Your task to perform on an android device: empty trash in google photos Image 0: 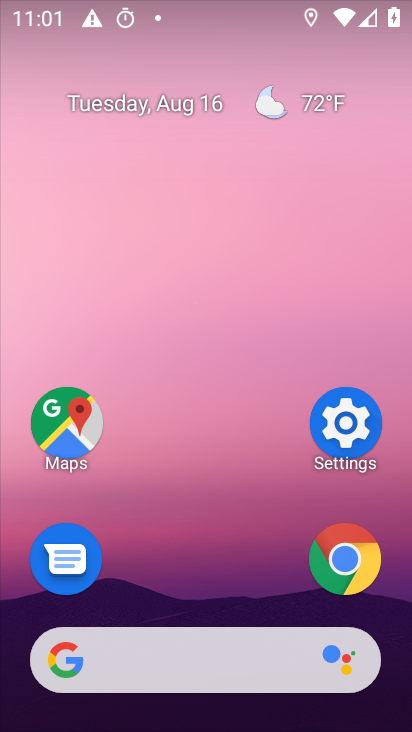
Step 0: drag from (186, 621) to (309, 120)
Your task to perform on an android device: empty trash in google photos Image 1: 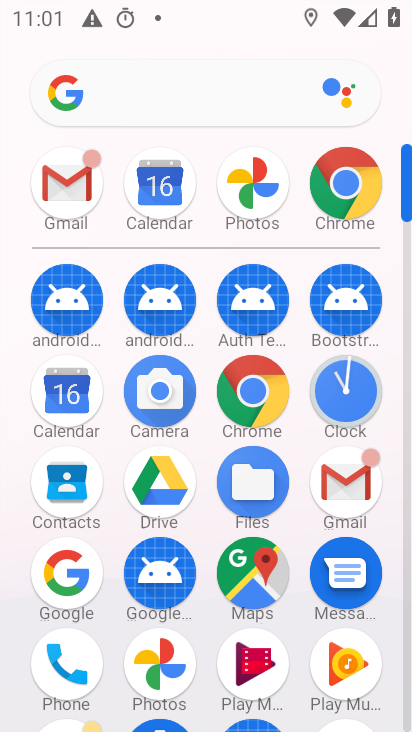
Step 1: click (257, 186)
Your task to perform on an android device: empty trash in google photos Image 2: 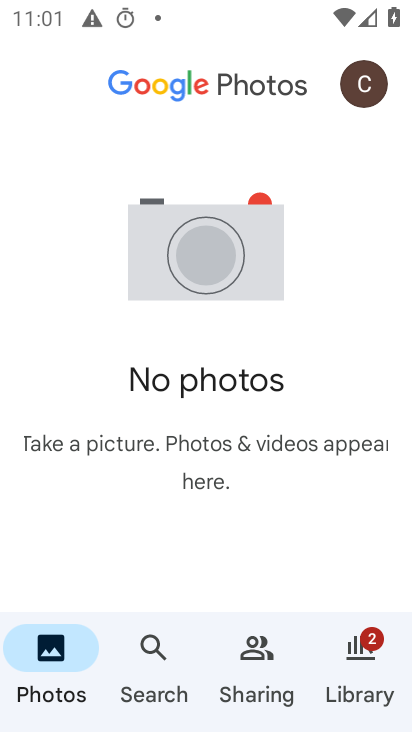
Step 2: click (341, 669)
Your task to perform on an android device: empty trash in google photos Image 3: 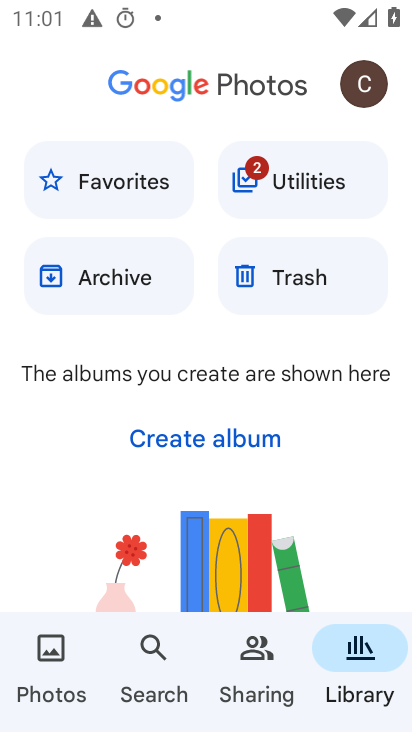
Step 3: click (289, 274)
Your task to perform on an android device: empty trash in google photos Image 4: 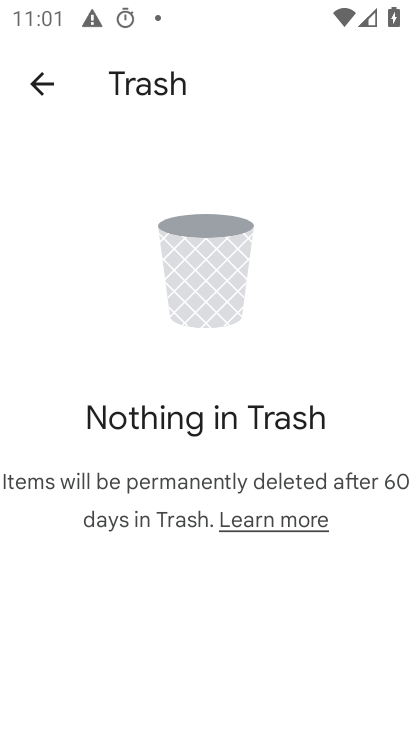
Step 4: task complete